Your task to perform on an android device: Go to Google Image 0: 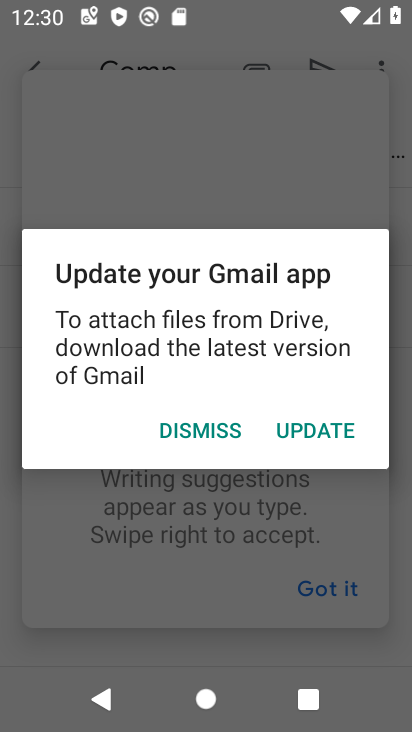
Step 0: press home button
Your task to perform on an android device: Go to Google Image 1: 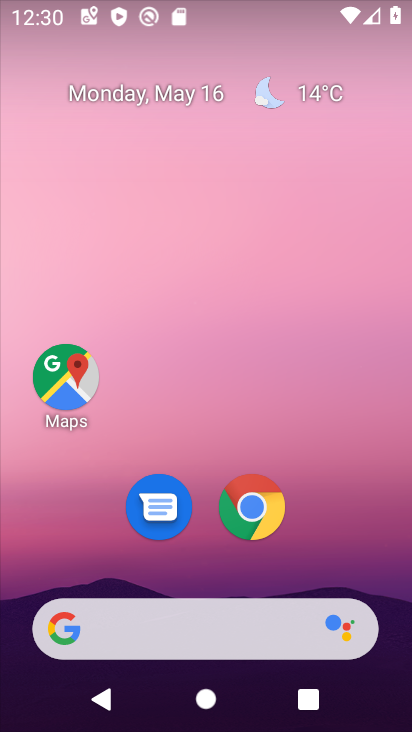
Step 1: drag from (261, 571) to (299, 118)
Your task to perform on an android device: Go to Google Image 2: 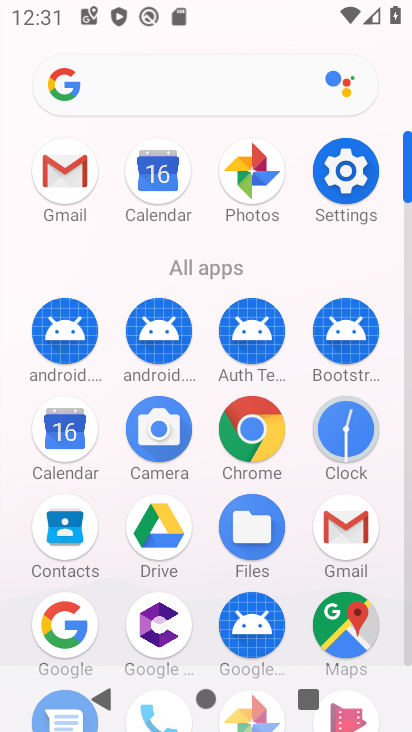
Step 2: click (55, 641)
Your task to perform on an android device: Go to Google Image 3: 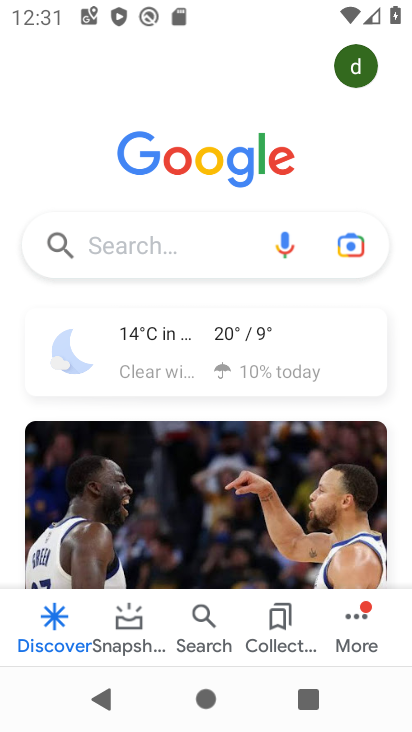
Step 3: task complete